Your task to perform on an android device: Go to Amazon Image 0: 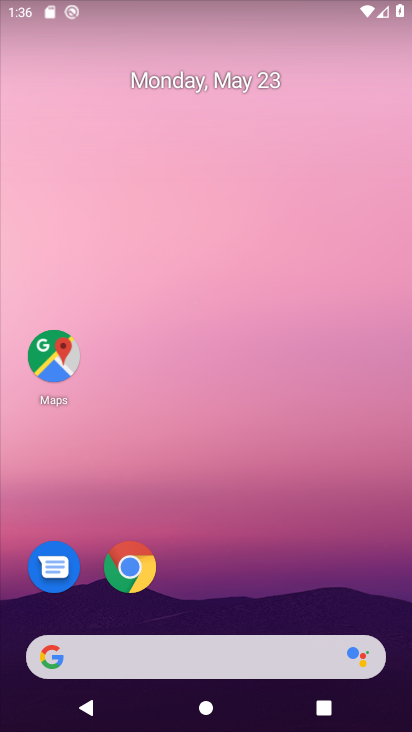
Step 0: click (123, 577)
Your task to perform on an android device: Go to Amazon Image 1: 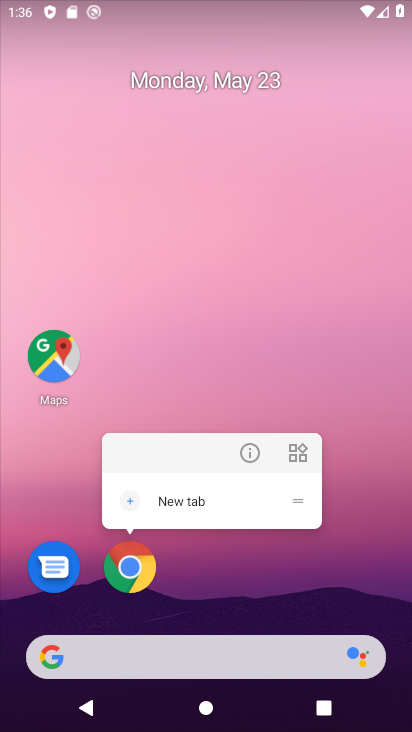
Step 1: click (135, 564)
Your task to perform on an android device: Go to Amazon Image 2: 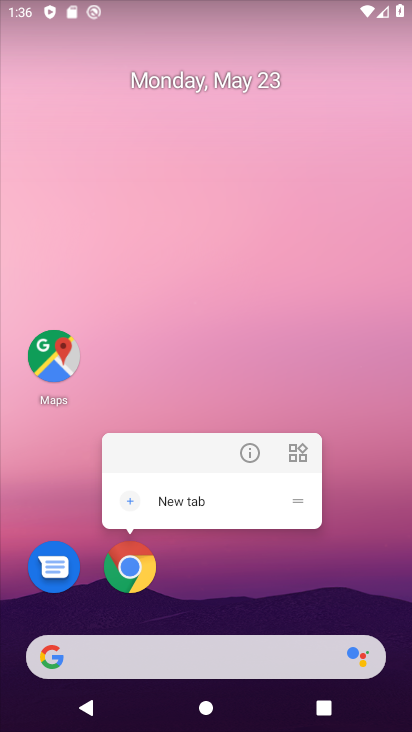
Step 2: click (136, 564)
Your task to perform on an android device: Go to Amazon Image 3: 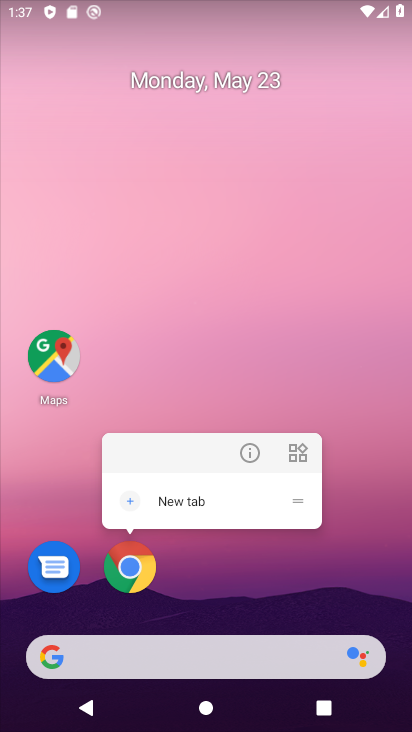
Step 3: click (136, 564)
Your task to perform on an android device: Go to Amazon Image 4: 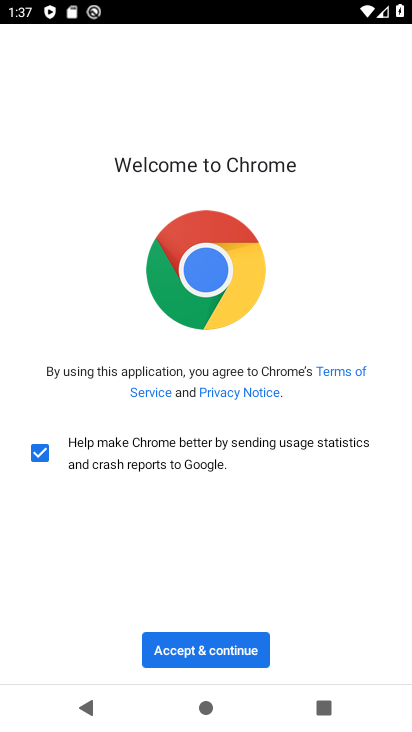
Step 4: click (171, 657)
Your task to perform on an android device: Go to Amazon Image 5: 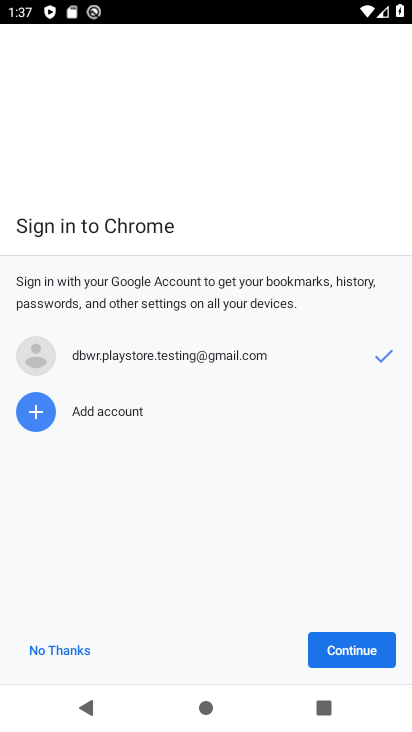
Step 5: click (363, 657)
Your task to perform on an android device: Go to Amazon Image 6: 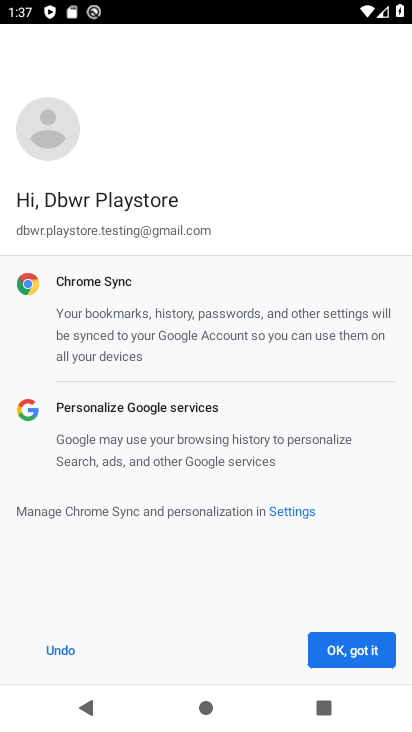
Step 6: click (346, 629)
Your task to perform on an android device: Go to Amazon Image 7: 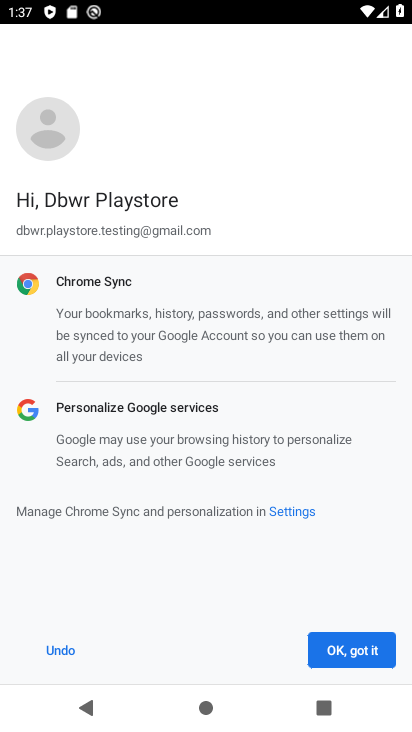
Step 7: click (347, 636)
Your task to perform on an android device: Go to Amazon Image 8: 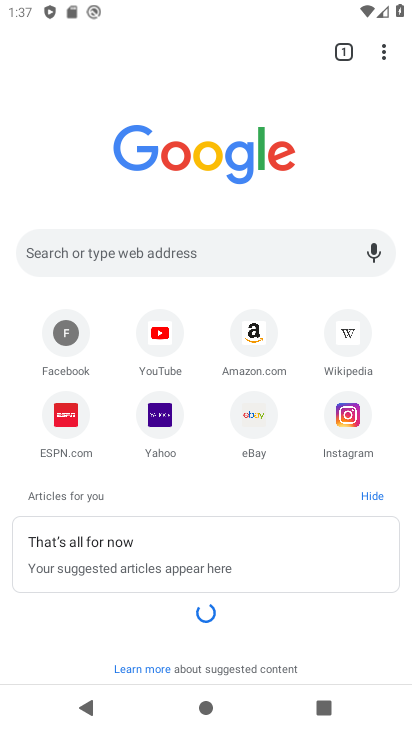
Step 8: click (256, 333)
Your task to perform on an android device: Go to Amazon Image 9: 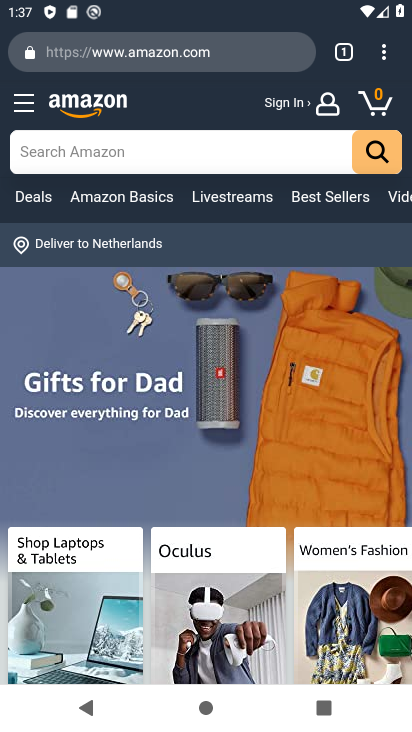
Step 9: task complete